Your task to perform on an android device: Go to Amazon Image 0: 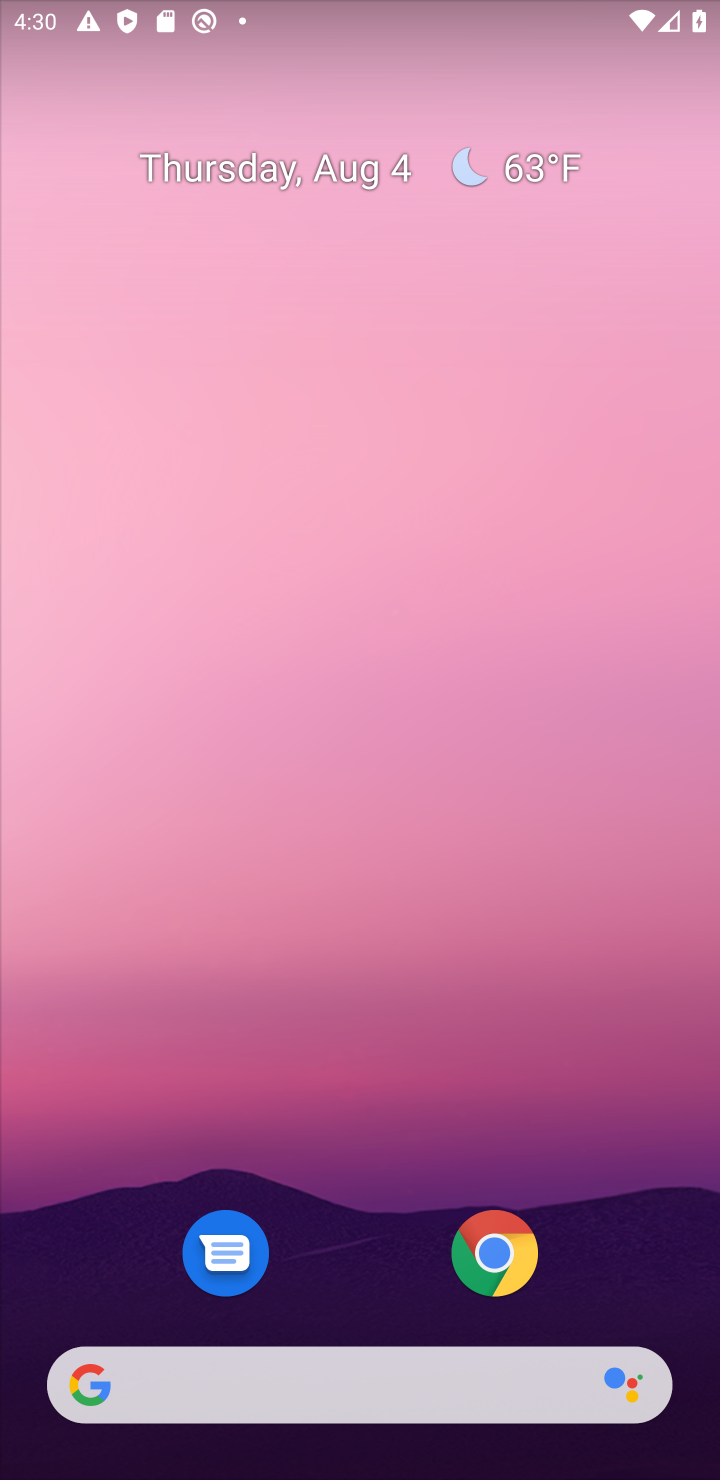
Step 0: drag from (225, 1261) to (545, 12)
Your task to perform on an android device: Go to Amazon Image 1: 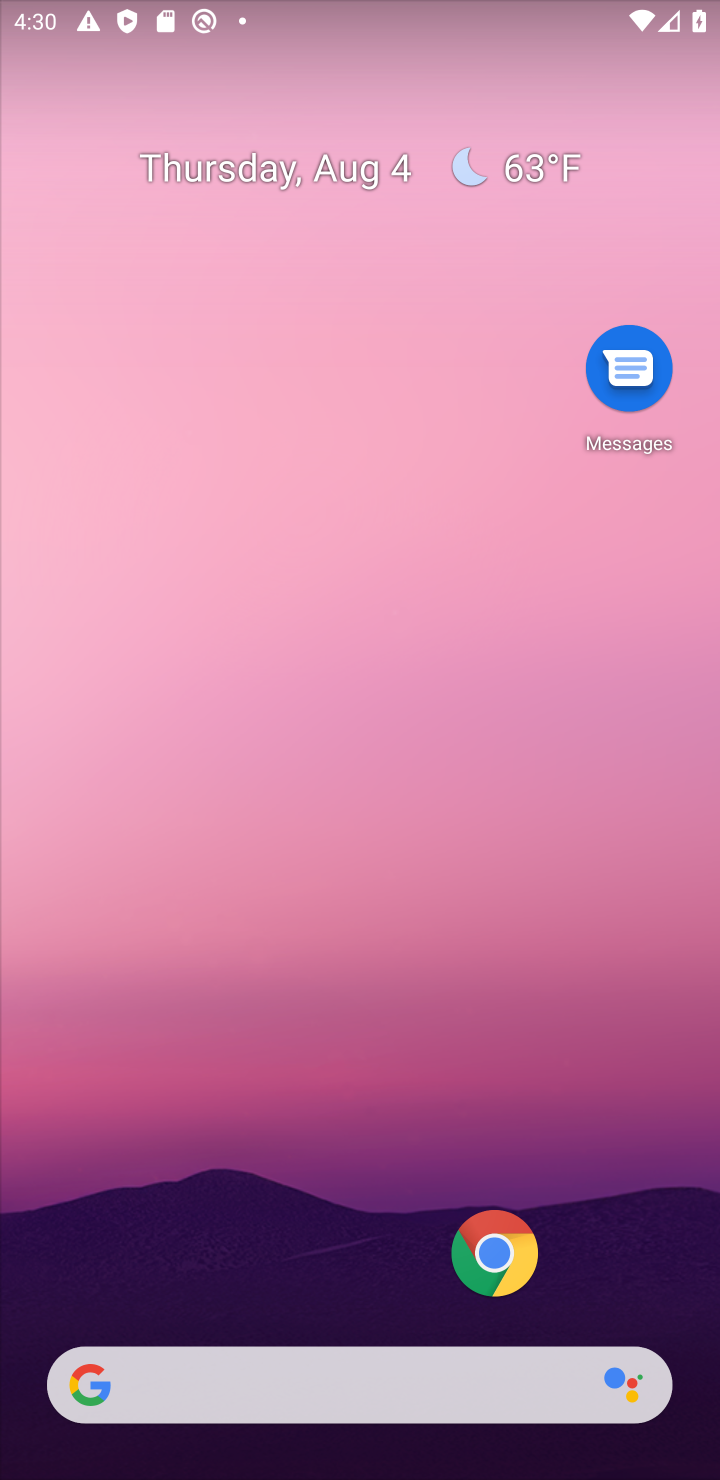
Step 1: click (492, 1243)
Your task to perform on an android device: Go to Amazon Image 2: 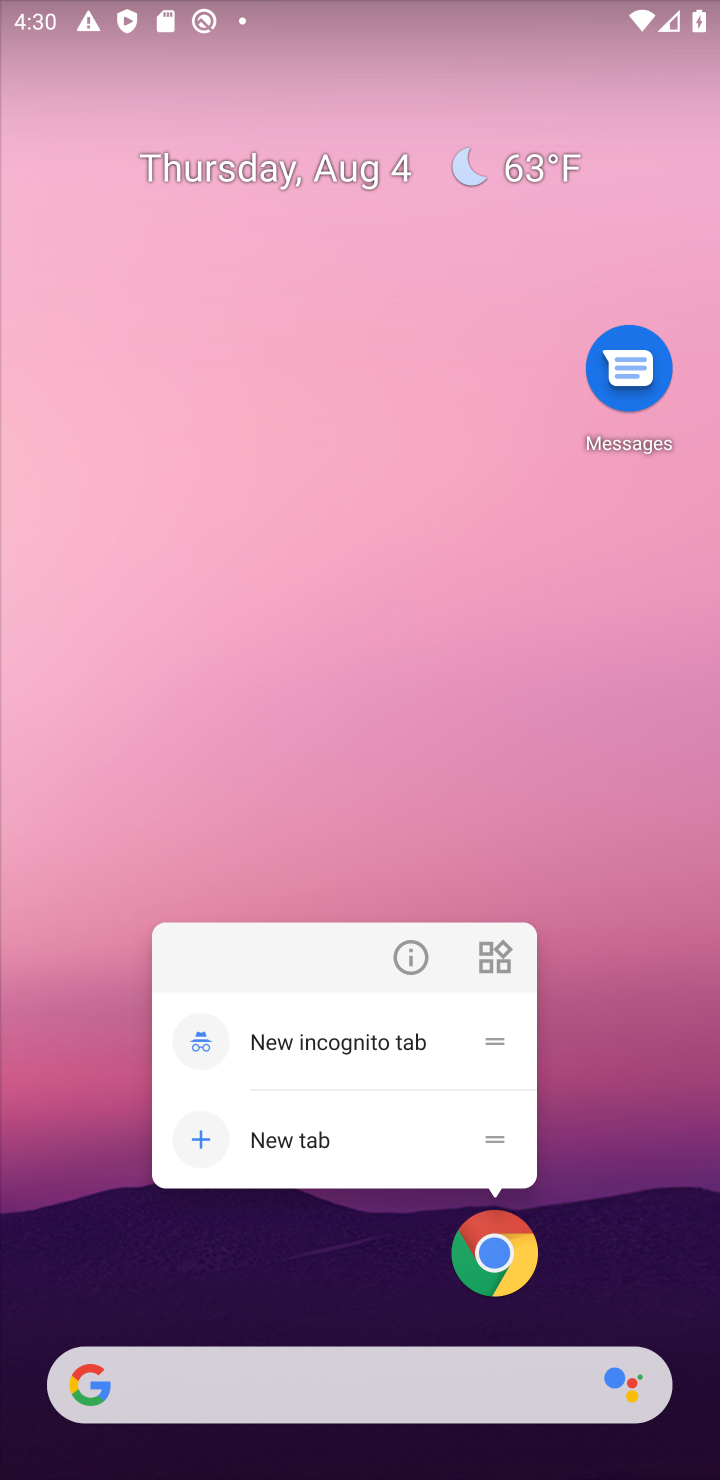
Step 2: click (494, 1245)
Your task to perform on an android device: Go to Amazon Image 3: 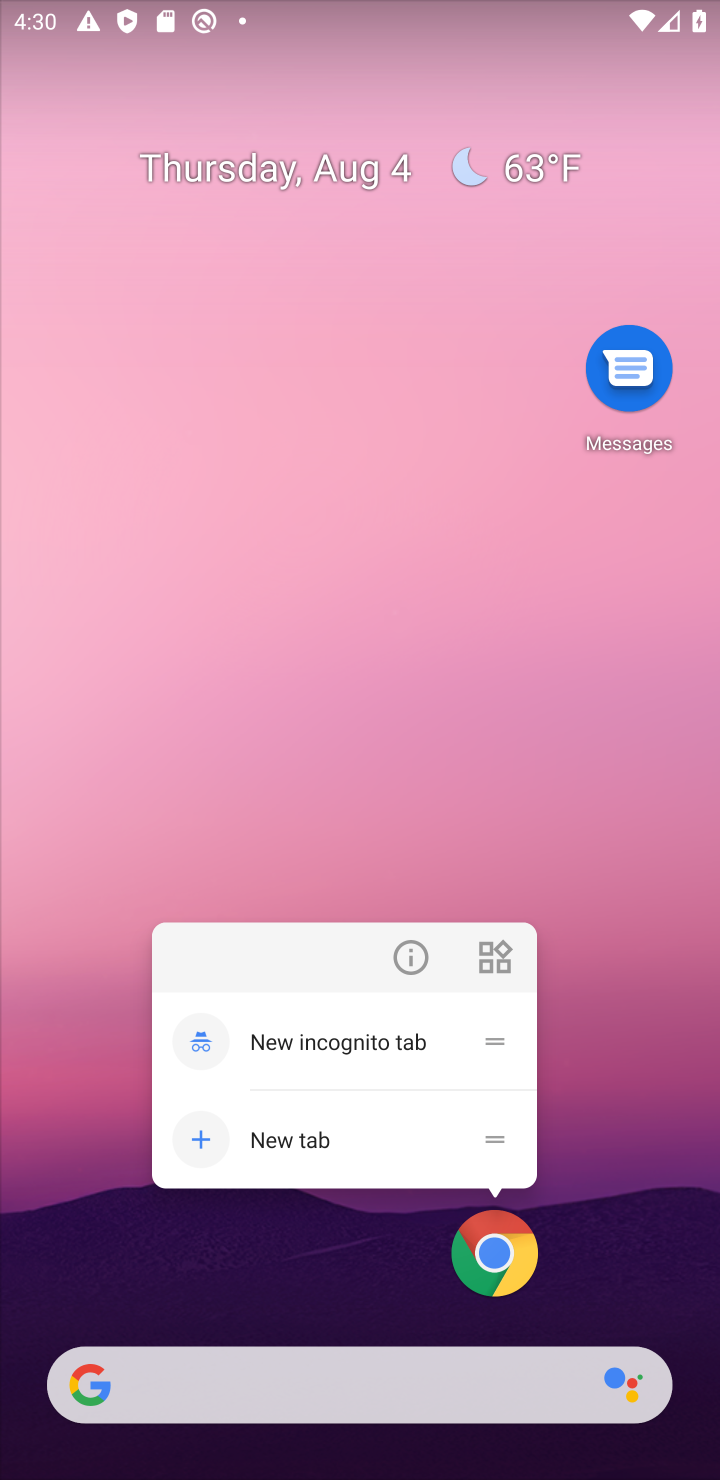
Step 3: click (495, 1276)
Your task to perform on an android device: Go to Amazon Image 4: 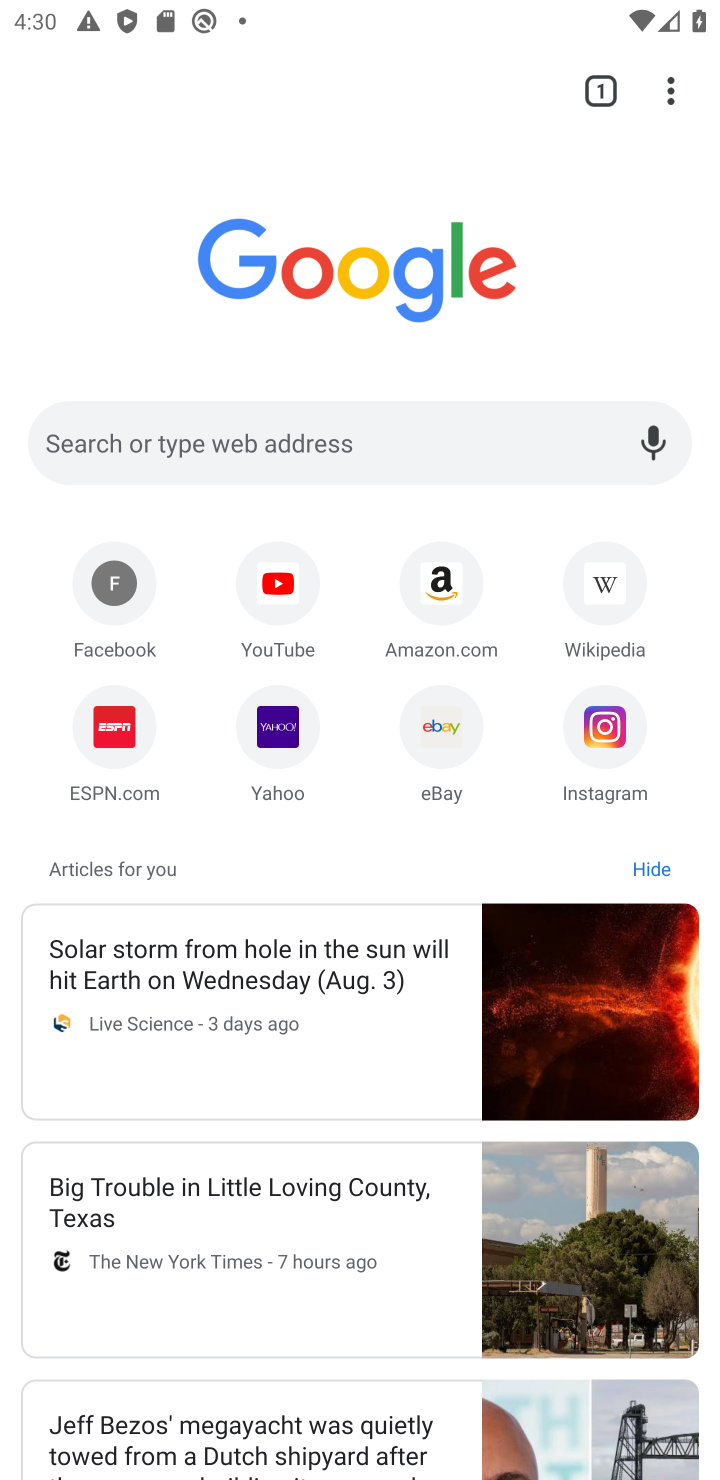
Step 4: click (440, 573)
Your task to perform on an android device: Go to Amazon Image 5: 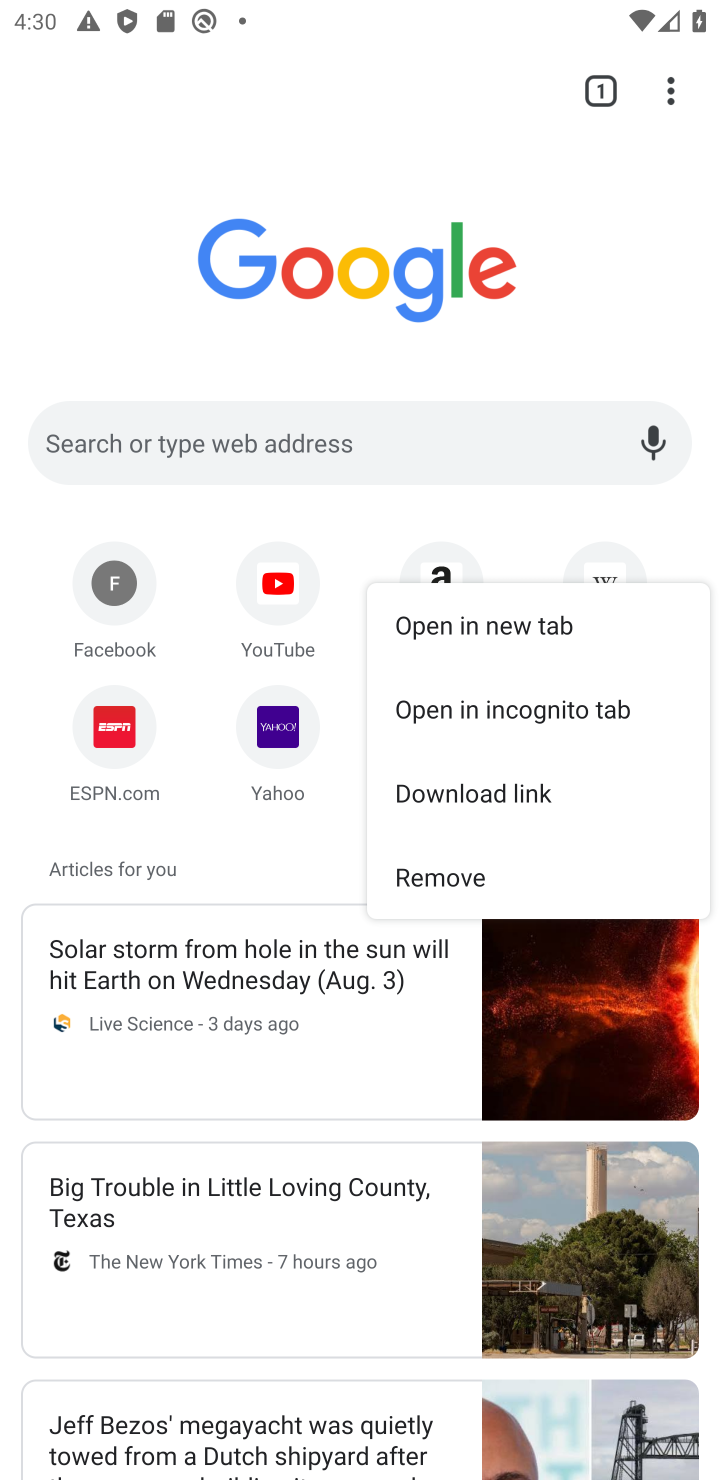
Step 5: click (441, 574)
Your task to perform on an android device: Go to Amazon Image 6: 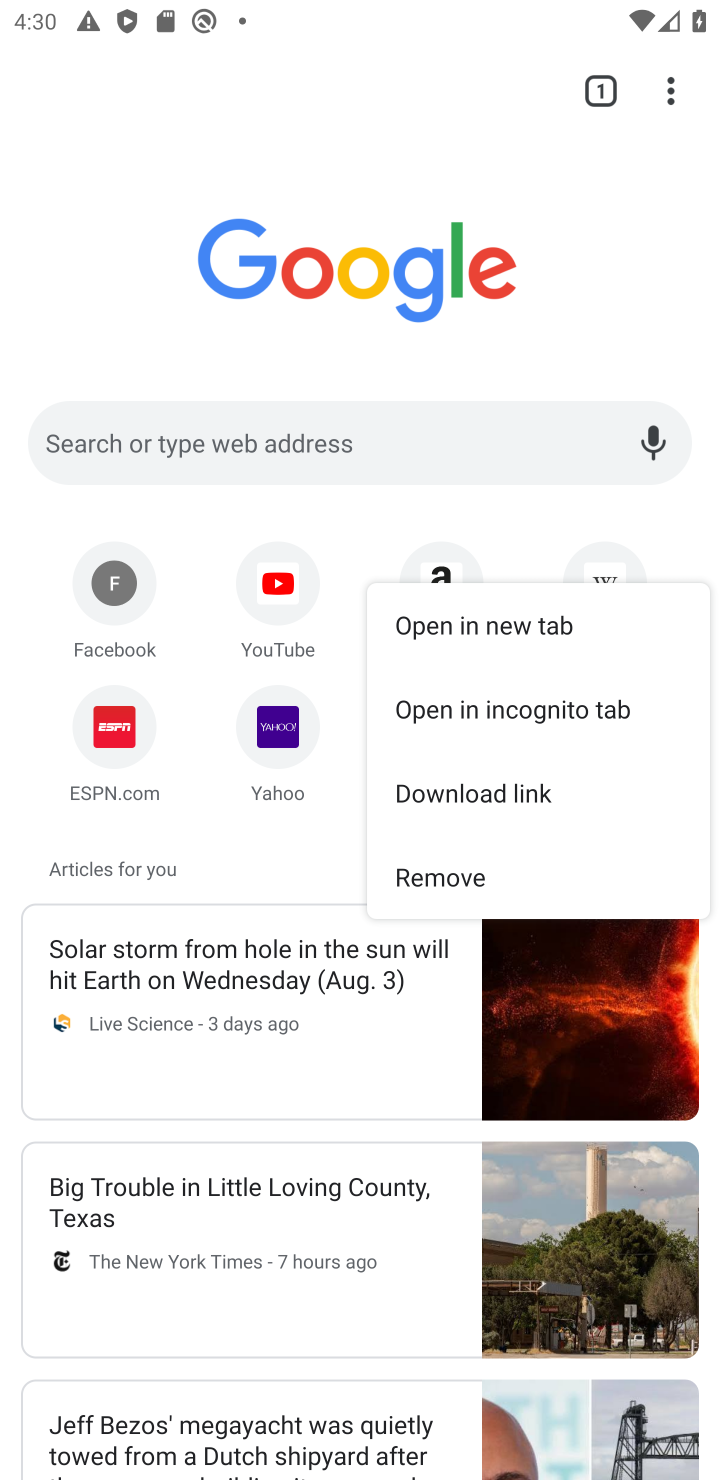
Step 6: click (441, 574)
Your task to perform on an android device: Go to Amazon Image 7: 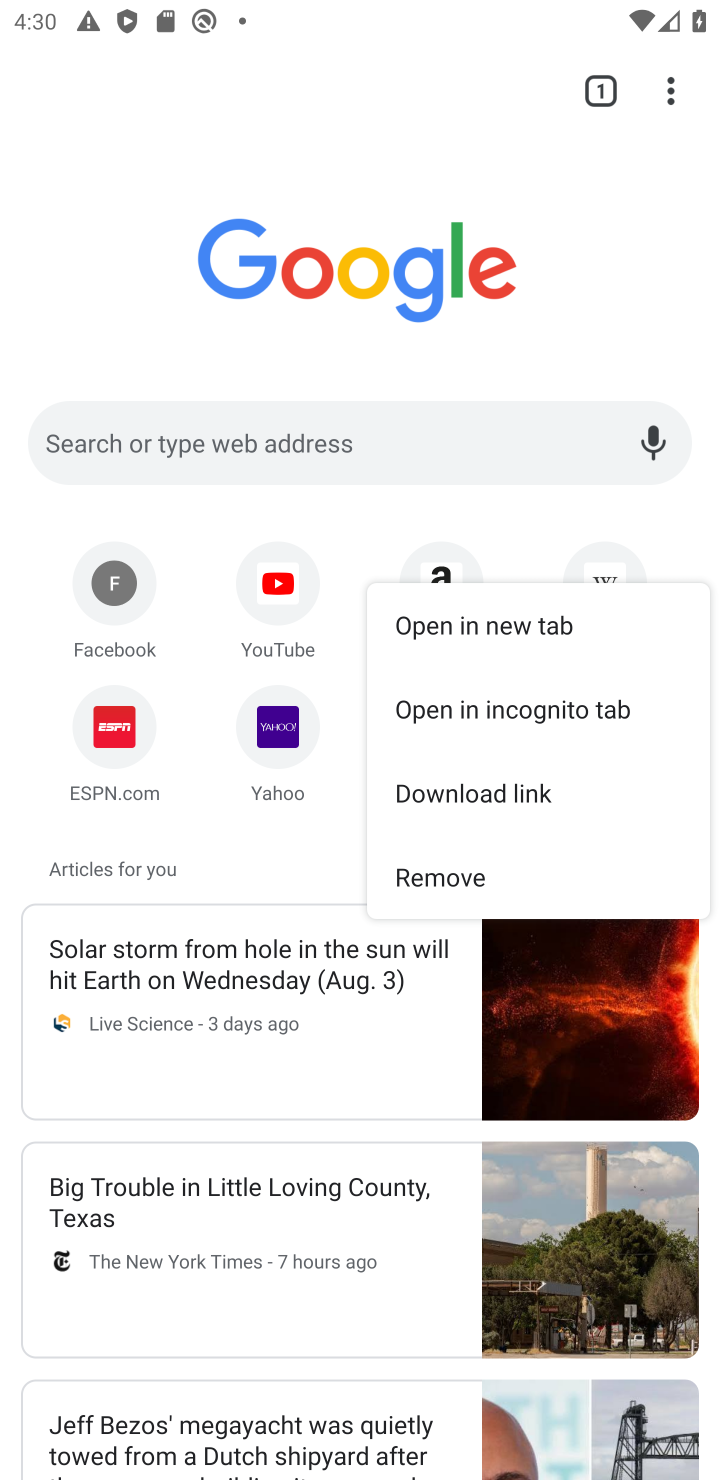
Step 7: click (357, 531)
Your task to perform on an android device: Go to Amazon Image 8: 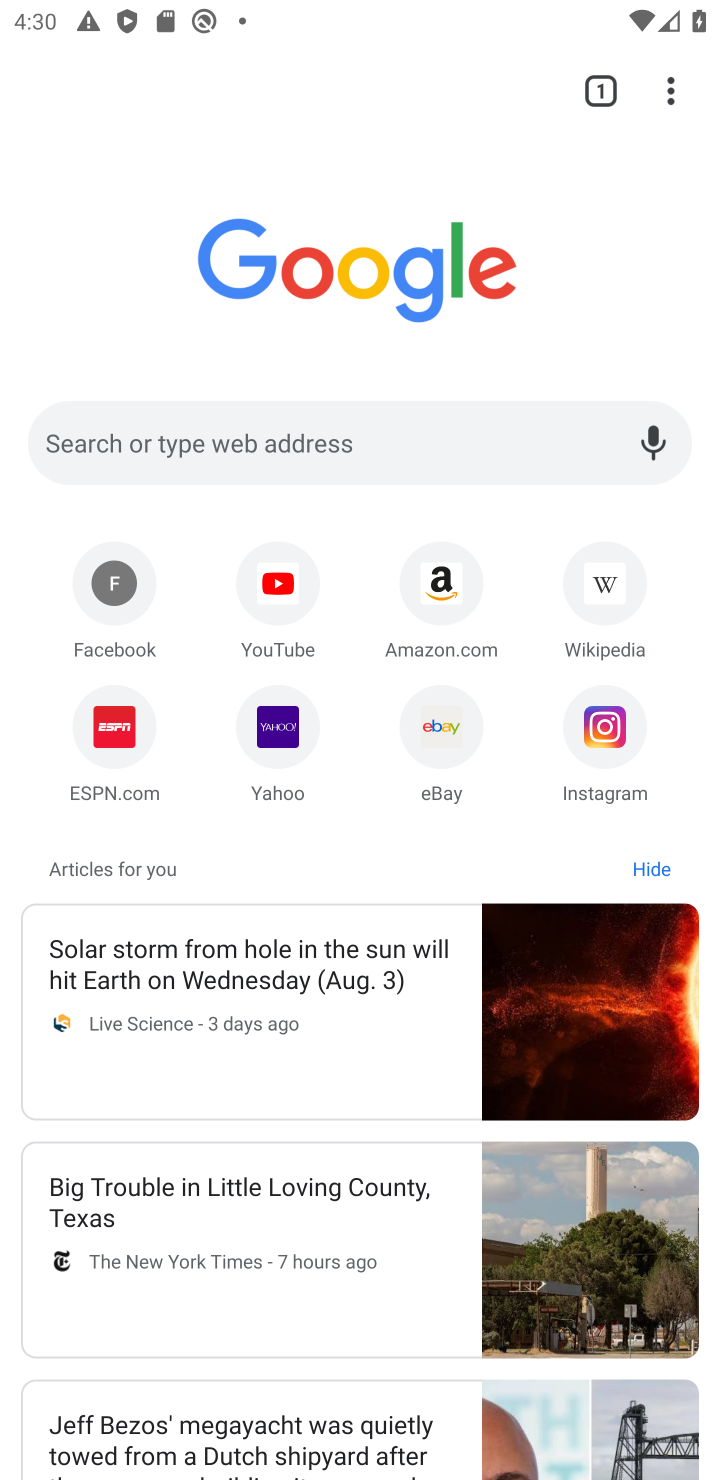
Step 8: click (461, 584)
Your task to perform on an android device: Go to Amazon Image 9: 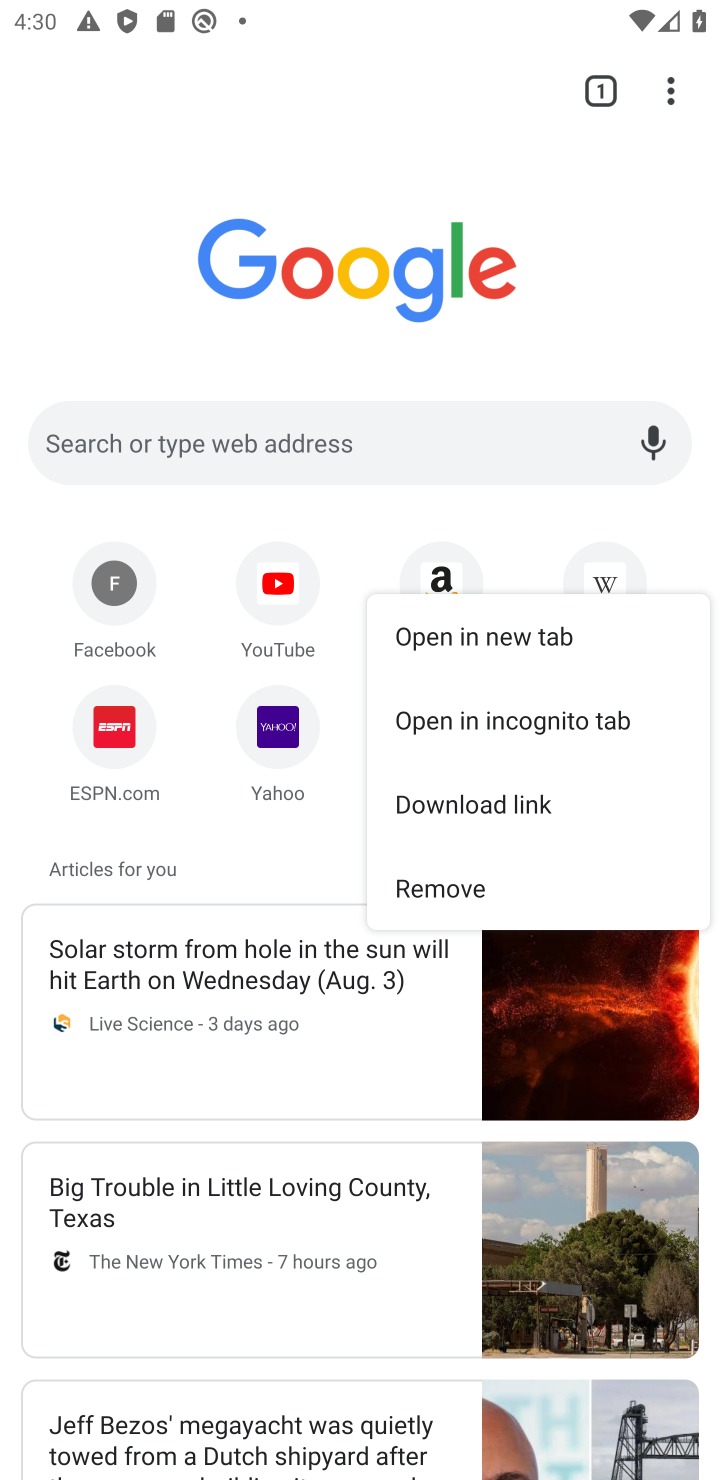
Step 9: click (461, 584)
Your task to perform on an android device: Go to Amazon Image 10: 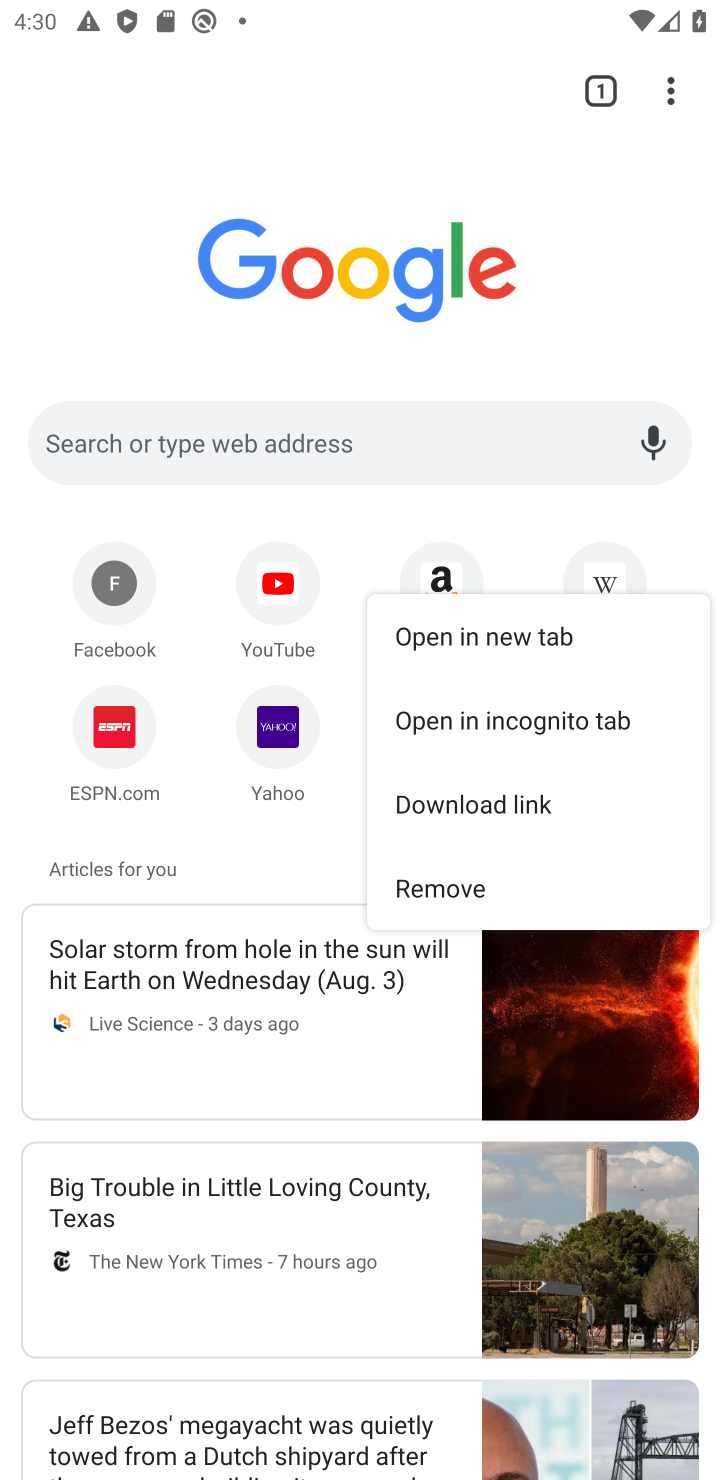
Step 10: click (229, 835)
Your task to perform on an android device: Go to Amazon Image 11: 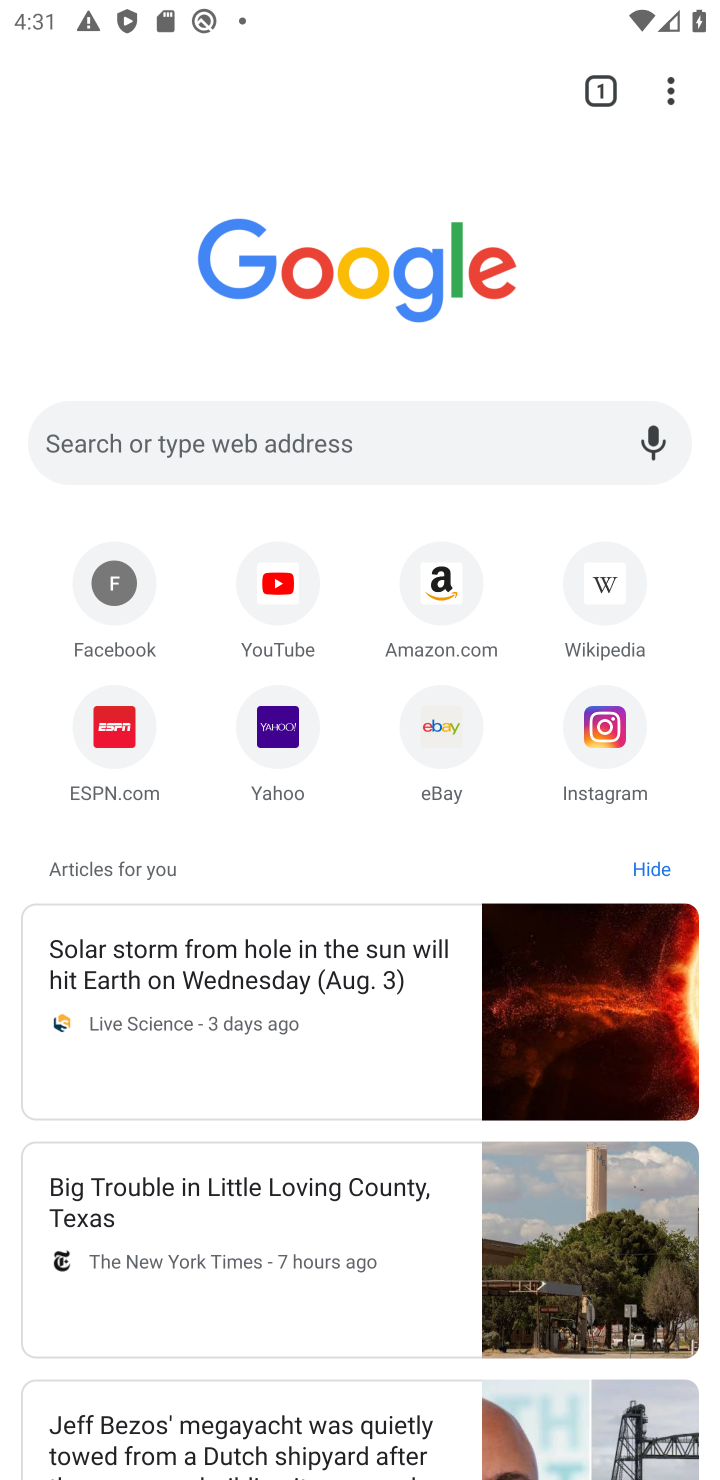
Step 11: click (418, 626)
Your task to perform on an android device: Go to Amazon Image 12: 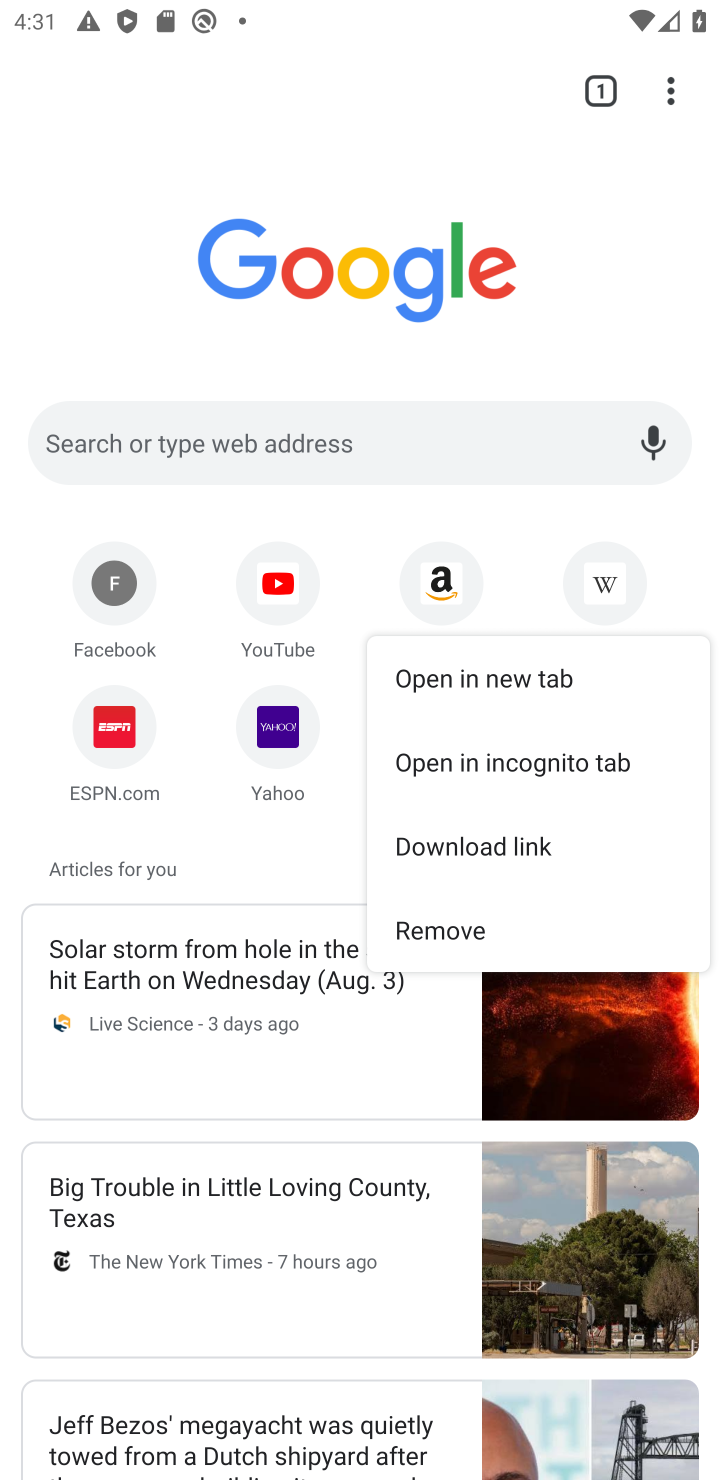
Step 12: click (450, 603)
Your task to perform on an android device: Go to Amazon Image 13: 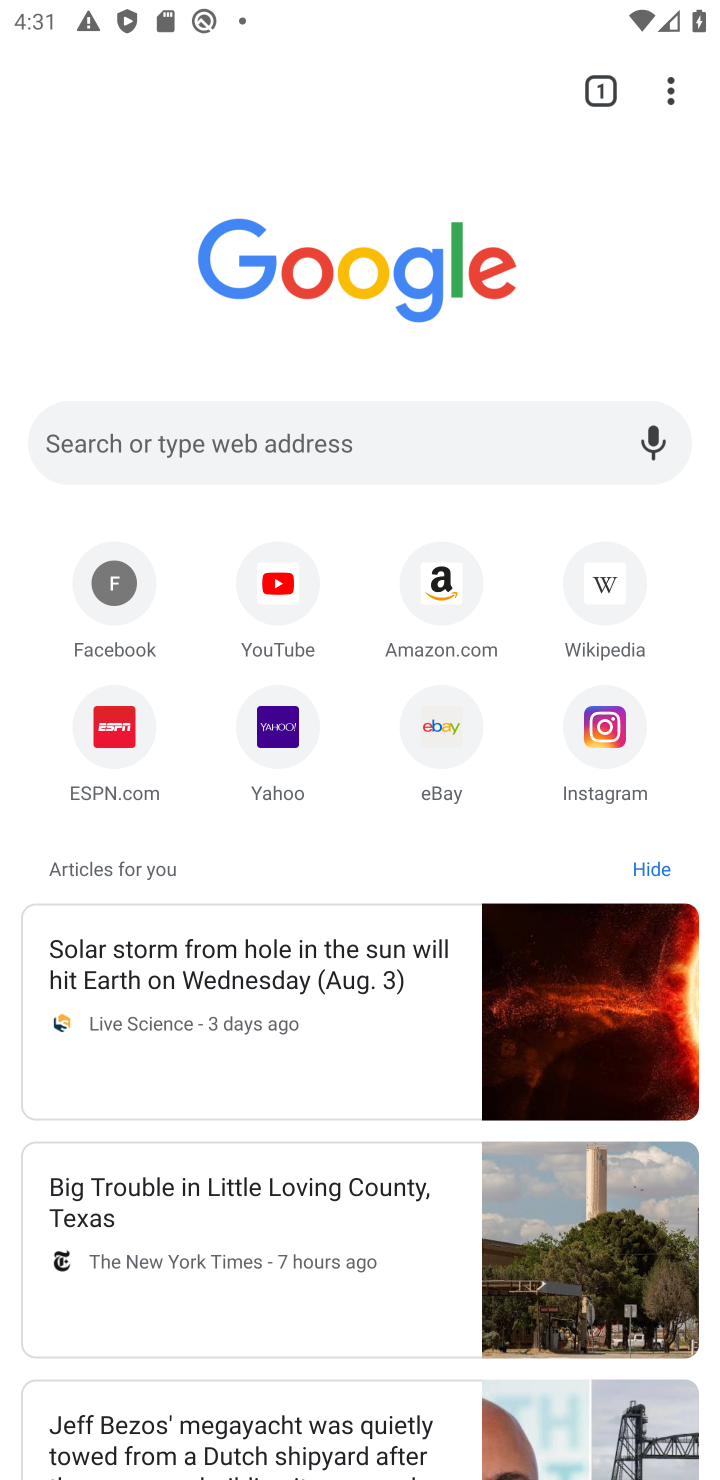
Step 13: click (447, 587)
Your task to perform on an android device: Go to Amazon Image 14: 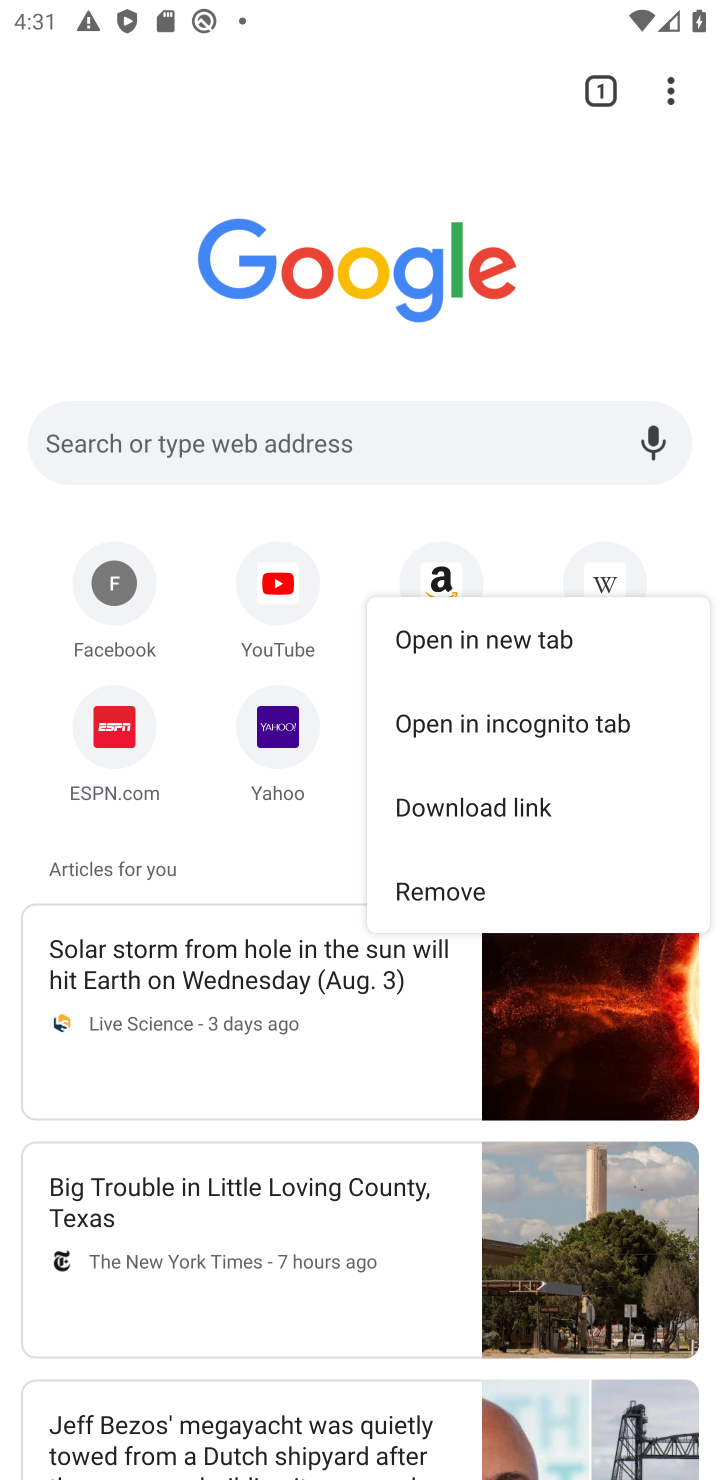
Step 14: click (435, 563)
Your task to perform on an android device: Go to Amazon Image 15: 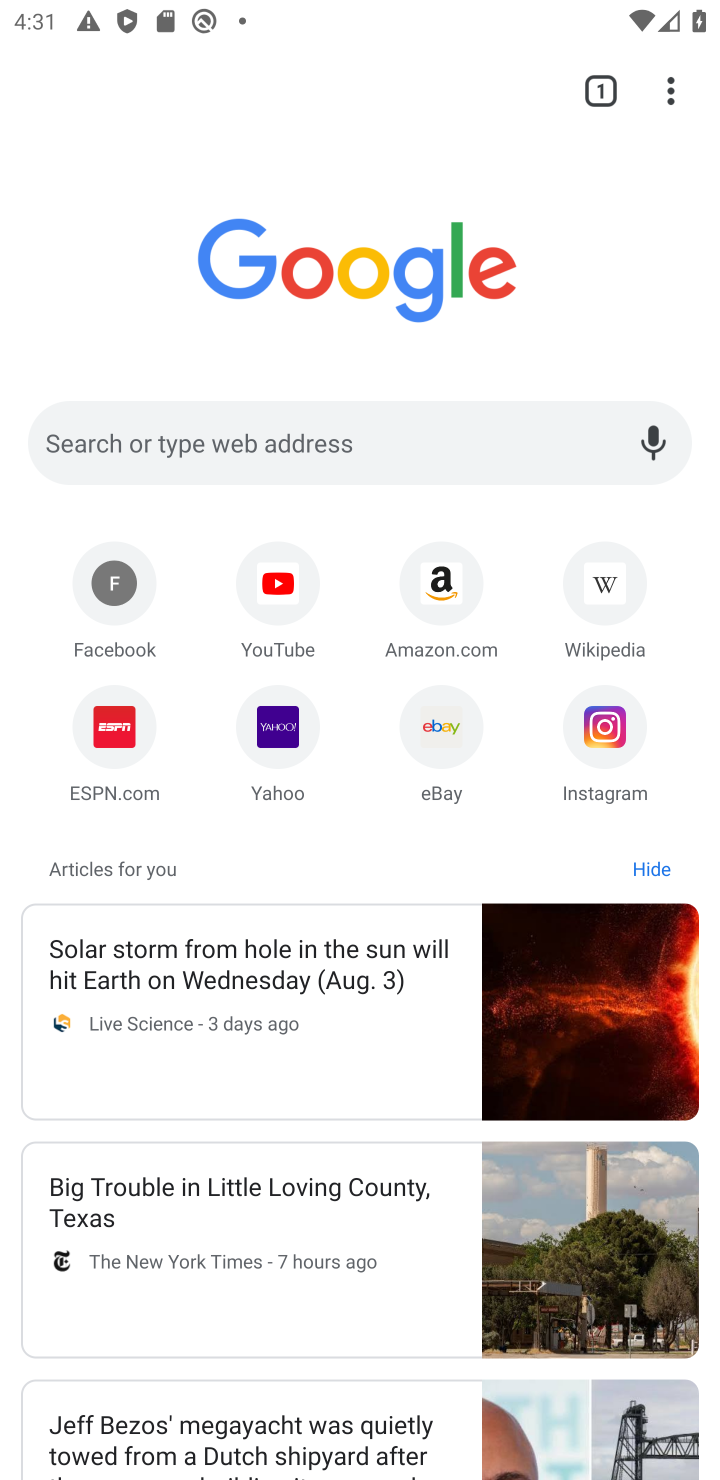
Step 15: click (466, 639)
Your task to perform on an android device: Go to Amazon Image 16: 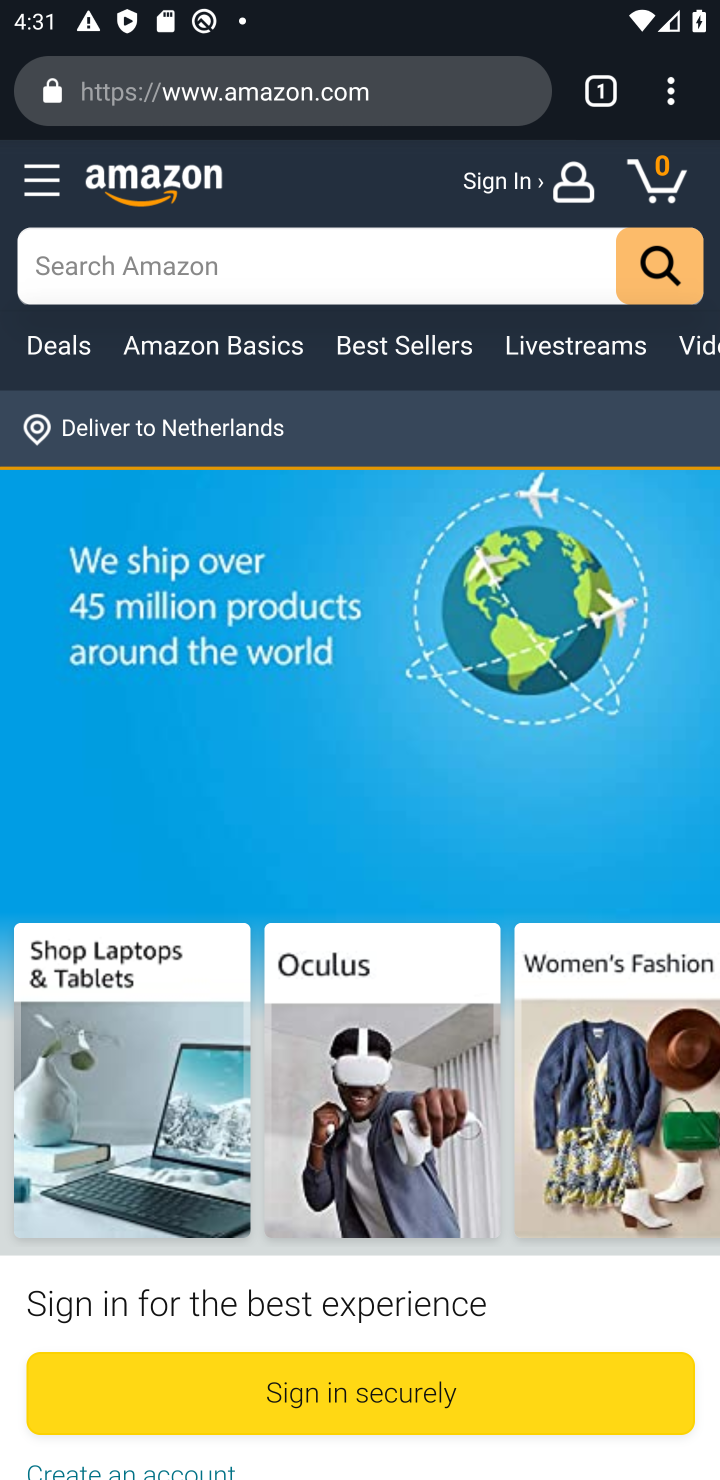
Step 16: task complete